Your task to perform on an android device: turn on location history Image 0: 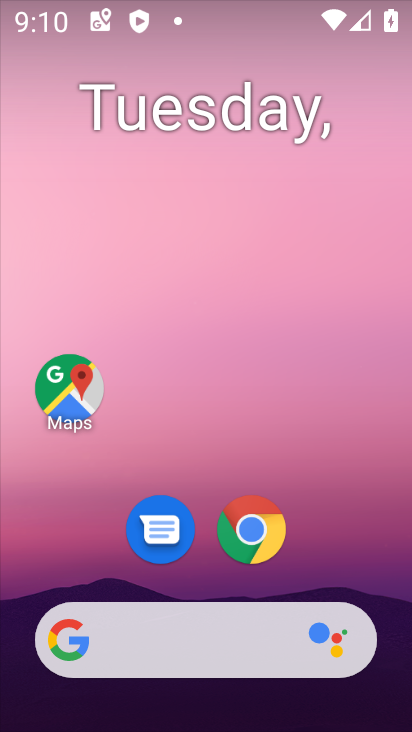
Step 0: drag from (207, 657) to (237, 164)
Your task to perform on an android device: turn on location history Image 1: 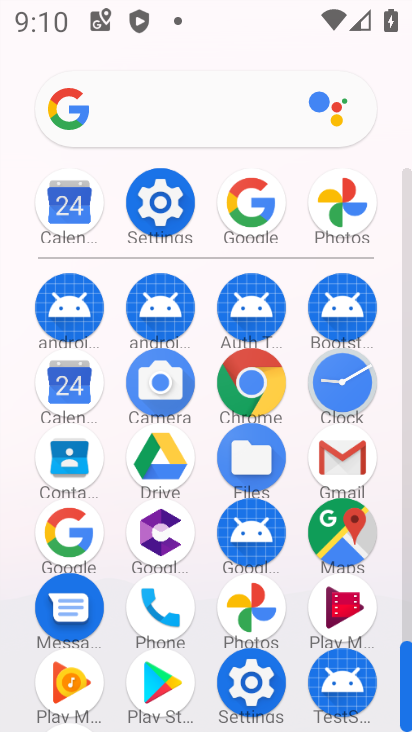
Step 1: click (170, 214)
Your task to perform on an android device: turn on location history Image 2: 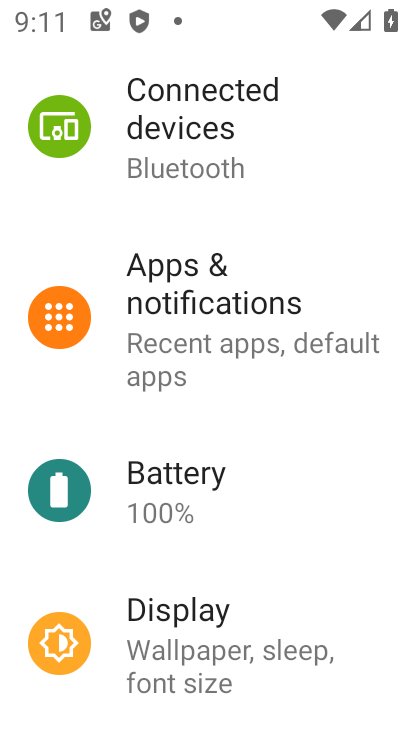
Step 2: drag from (167, 521) to (264, 5)
Your task to perform on an android device: turn on location history Image 3: 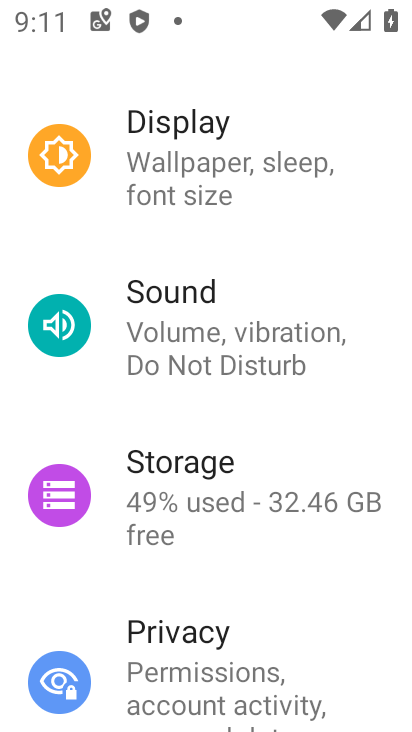
Step 3: drag from (221, 621) to (411, 259)
Your task to perform on an android device: turn on location history Image 4: 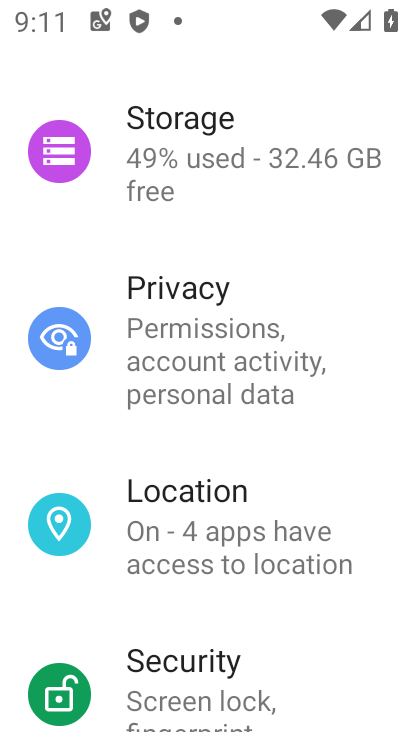
Step 4: click (231, 528)
Your task to perform on an android device: turn on location history Image 5: 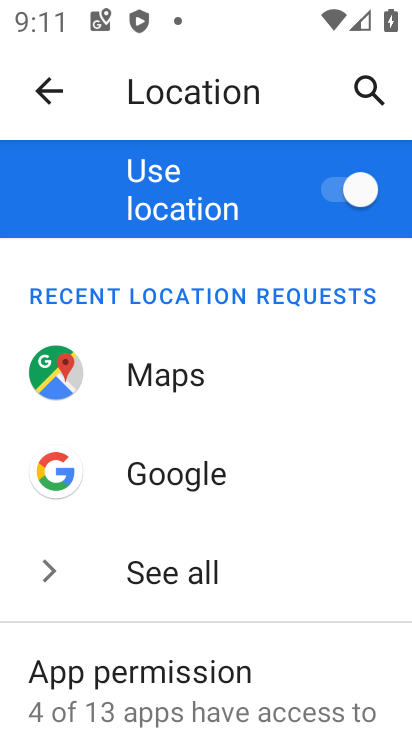
Step 5: drag from (231, 551) to (411, 142)
Your task to perform on an android device: turn on location history Image 6: 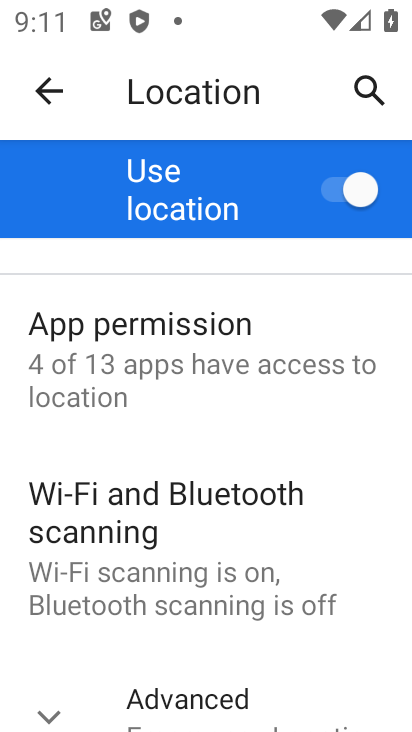
Step 6: click (234, 694)
Your task to perform on an android device: turn on location history Image 7: 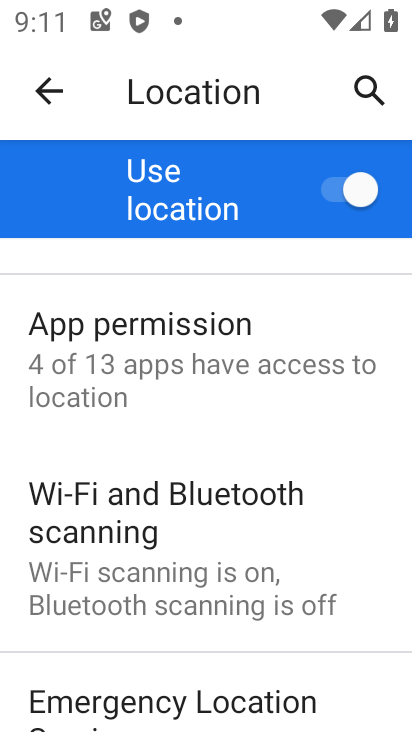
Step 7: drag from (168, 615) to (223, 204)
Your task to perform on an android device: turn on location history Image 8: 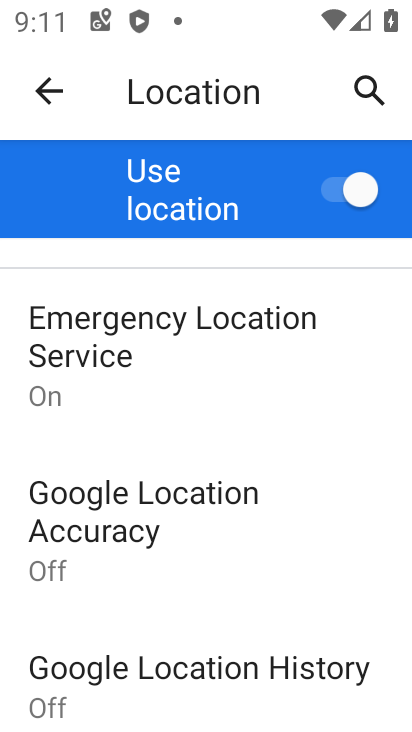
Step 8: click (211, 668)
Your task to perform on an android device: turn on location history Image 9: 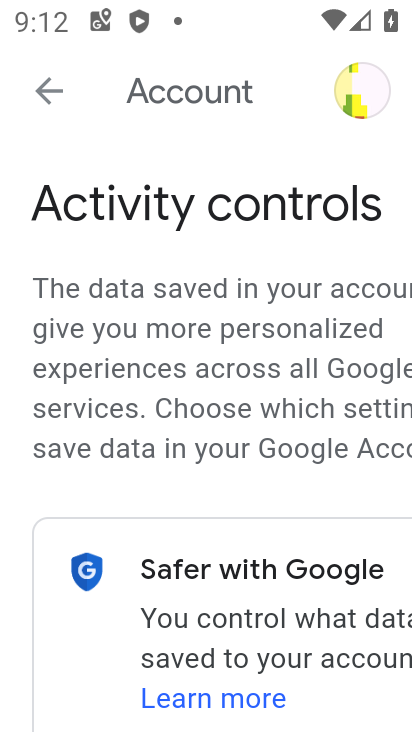
Step 9: drag from (186, 597) to (11, 329)
Your task to perform on an android device: turn on location history Image 10: 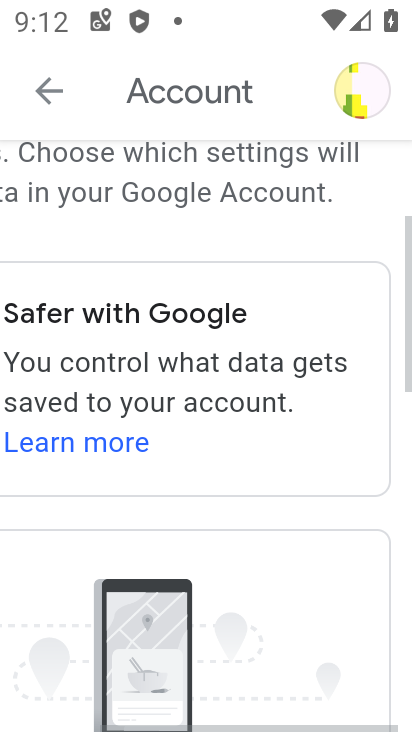
Step 10: drag from (229, 591) to (84, 180)
Your task to perform on an android device: turn on location history Image 11: 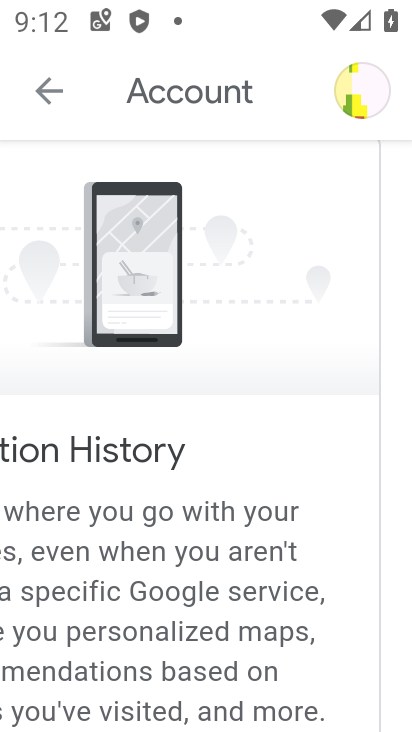
Step 11: drag from (245, 628) to (130, 231)
Your task to perform on an android device: turn on location history Image 12: 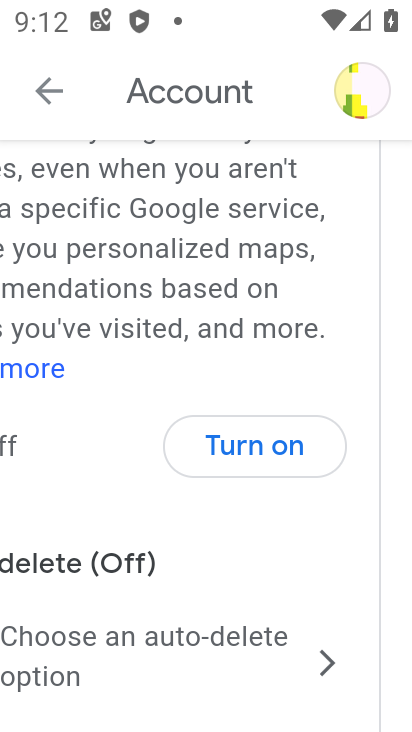
Step 12: click (236, 448)
Your task to perform on an android device: turn on location history Image 13: 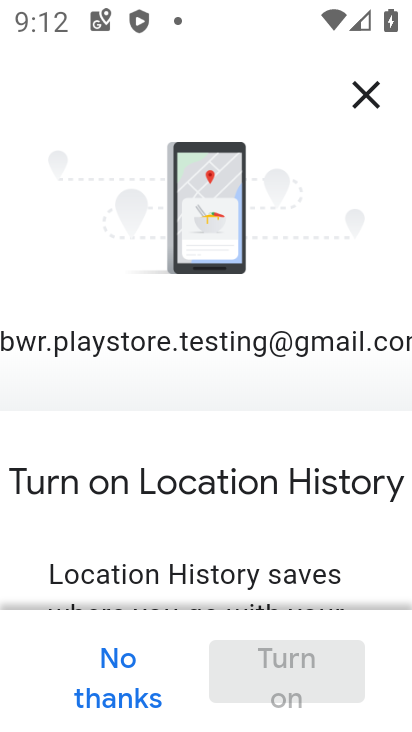
Step 13: drag from (296, 543) to (292, 64)
Your task to perform on an android device: turn on location history Image 14: 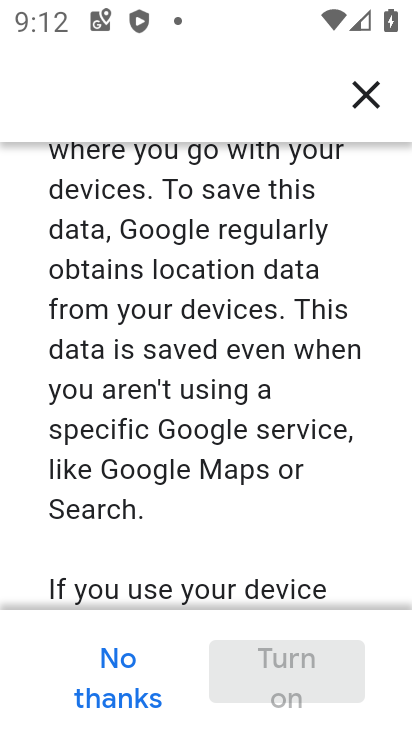
Step 14: drag from (270, 508) to (282, 83)
Your task to perform on an android device: turn on location history Image 15: 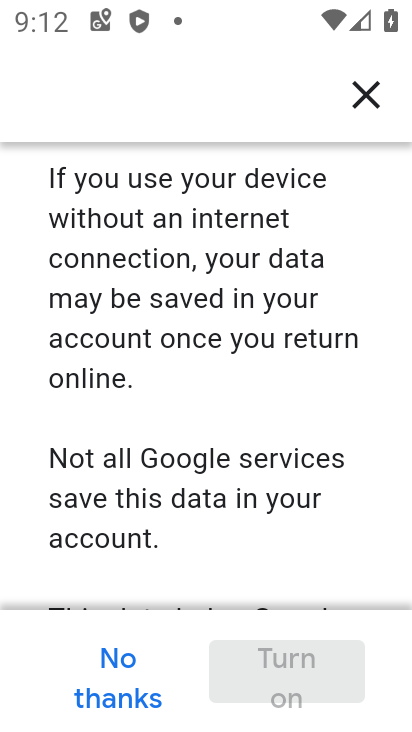
Step 15: drag from (259, 493) to (272, 191)
Your task to perform on an android device: turn on location history Image 16: 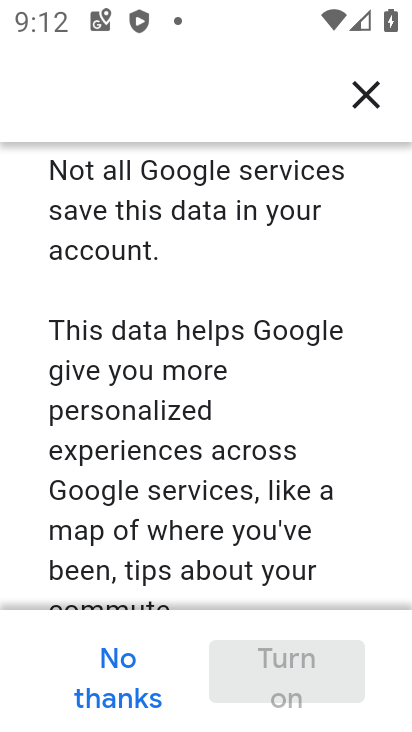
Step 16: drag from (223, 487) to (224, 106)
Your task to perform on an android device: turn on location history Image 17: 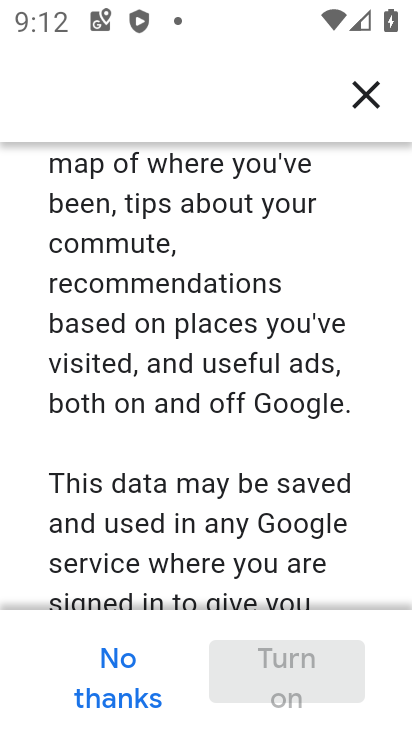
Step 17: drag from (225, 485) to (269, 67)
Your task to perform on an android device: turn on location history Image 18: 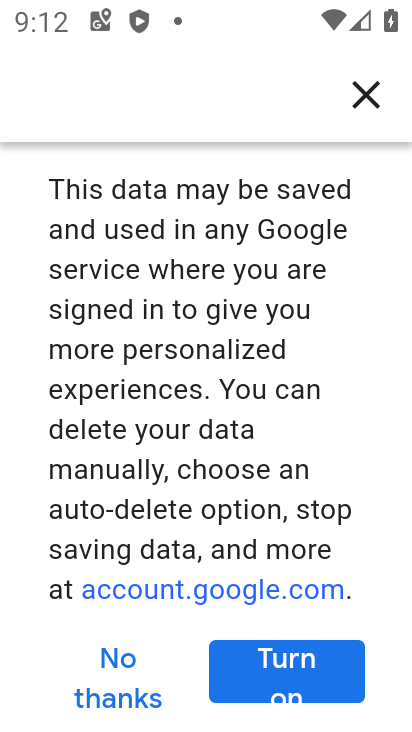
Step 18: click (298, 677)
Your task to perform on an android device: turn on location history Image 19: 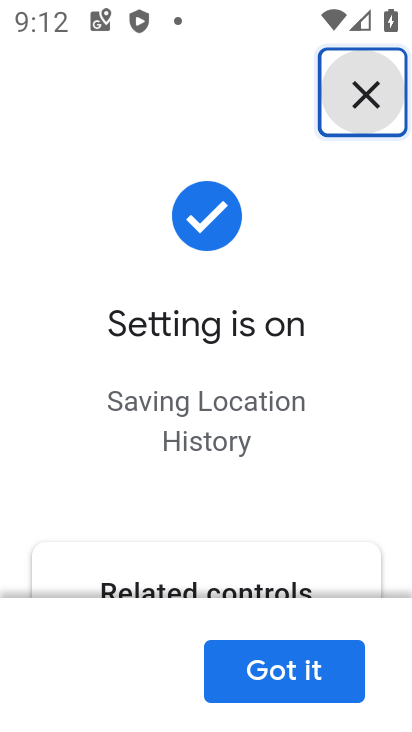
Step 19: click (296, 676)
Your task to perform on an android device: turn on location history Image 20: 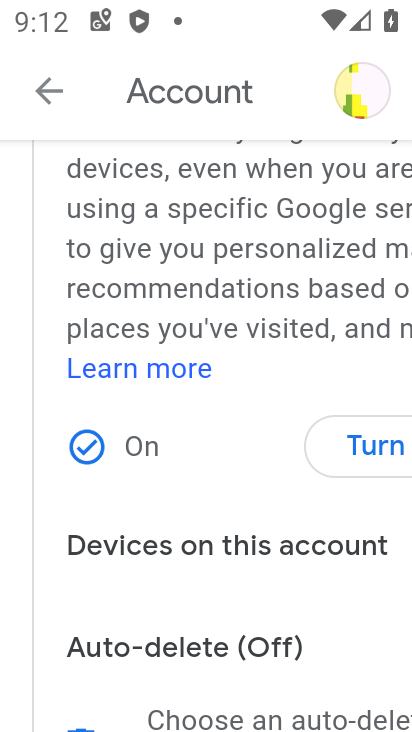
Step 20: task complete